Your task to perform on an android device: Open Android settings Image 0: 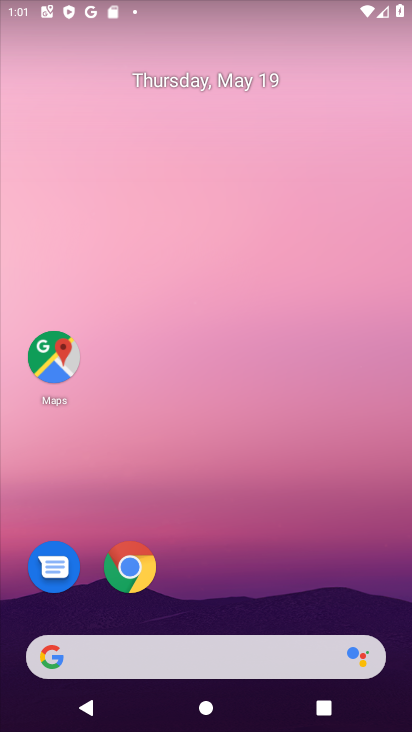
Step 0: drag from (328, 577) to (351, 48)
Your task to perform on an android device: Open Android settings Image 1: 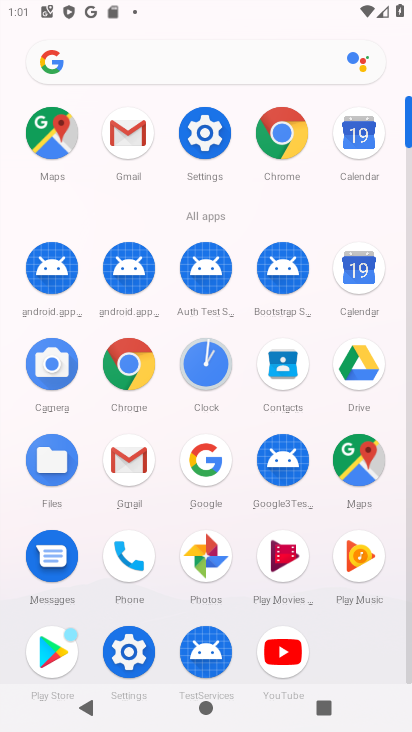
Step 1: click (216, 138)
Your task to perform on an android device: Open Android settings Image 2: 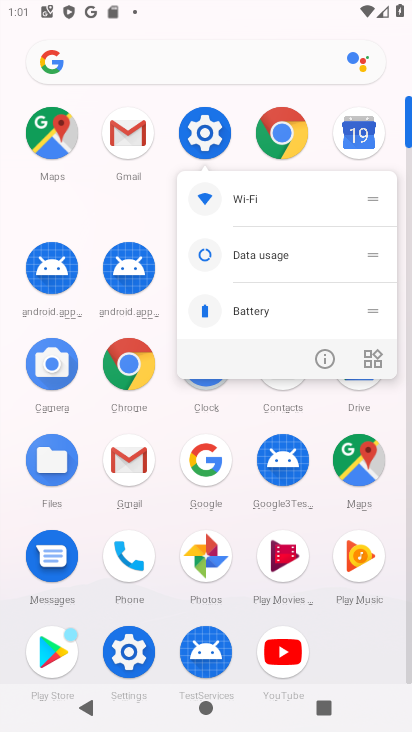
Step 2: click (216, 136)
Your task to perform on an android device: Open Android settings Image 3: 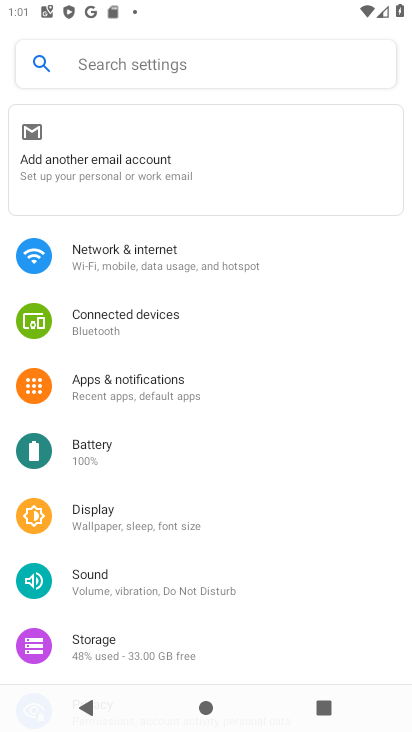
Step 3: drag from (220, 626) to (303, 203)
Your task to perform on an android device: Open Android settings Image 4: 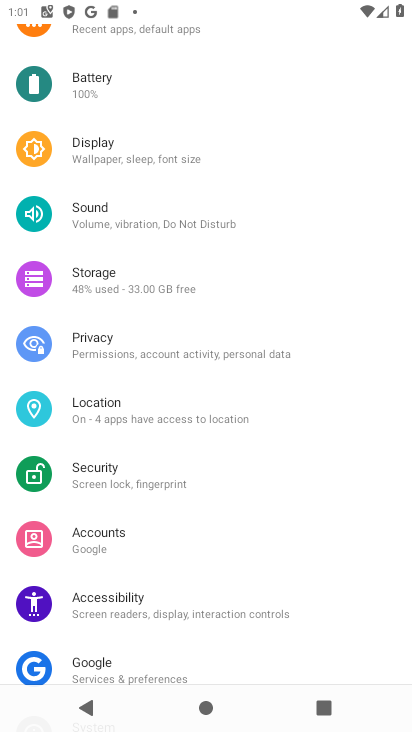
Step 4: drag from (242, 580) to (286, 160)
Your task to perform on an android device: Open Android settings Image 5: 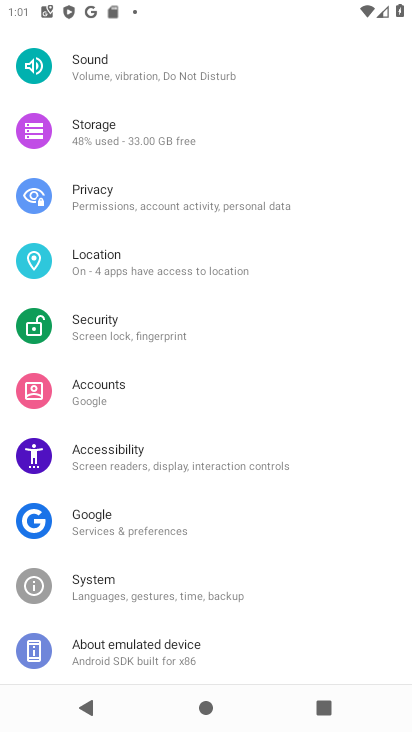
Step 5: click (149, 657)
Your task to perform on an android device: Open Android settings Image 6: 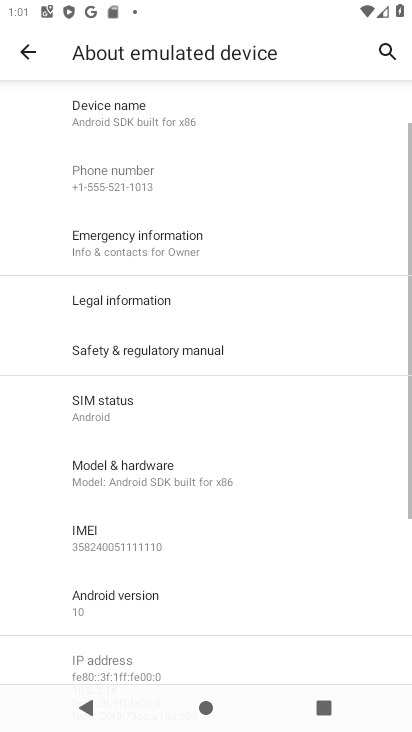
Step 6: task complete